Your task to perform on an android device: Show the shopping cart on ebay.com. Search for "logitech g pro" on ebay.com, select the first entry, add it to the cart, then select checkout. Image 0: 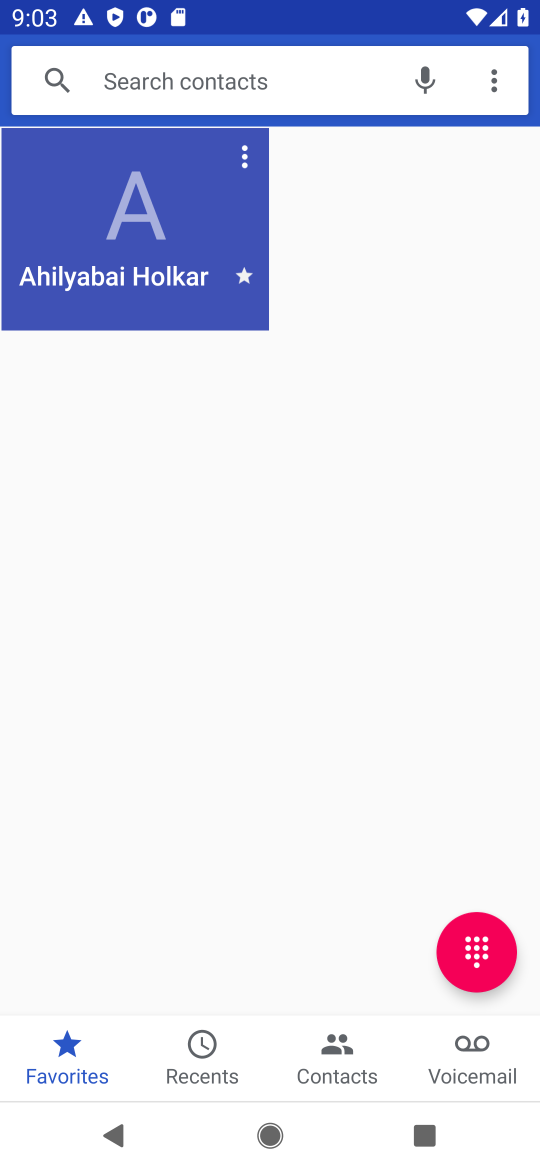
Step 0: press home button
Your task to perform on an android device: Show the shopping cart on ebay.com. Search for "logitech g pro" on ebay.com, select the first entry, add it to the cart, then select checkout. Image 1: 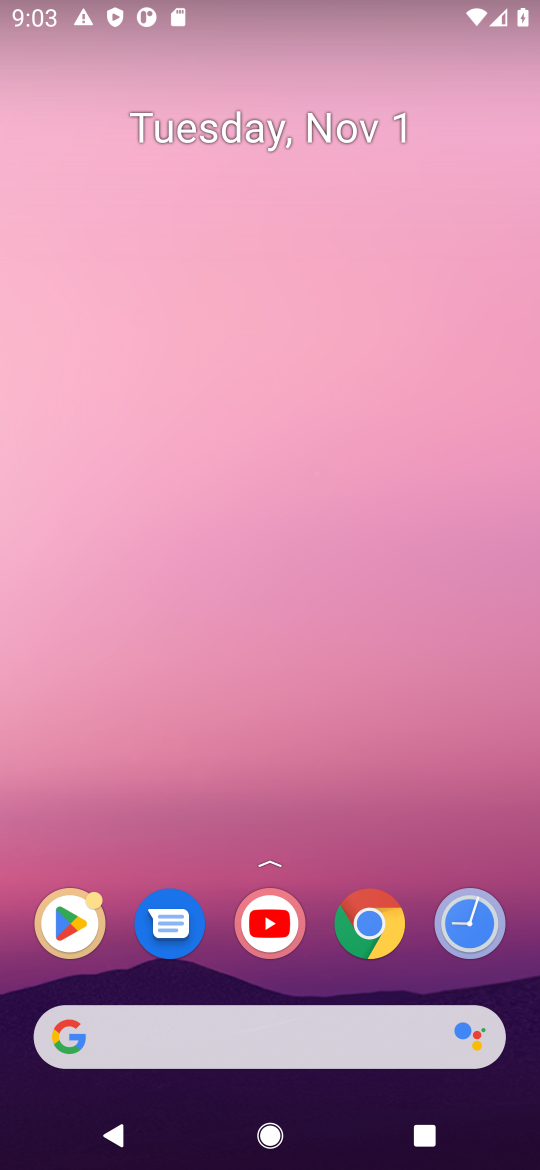
Step 1: drag from (337, 995) to (404, 106)
Your task to perform on an android device: Show the shopping cart on ebay.com. Search for "logitech g pro" on ebay.com, select the first entry, add it to the cart, then select checkout. Image 2: 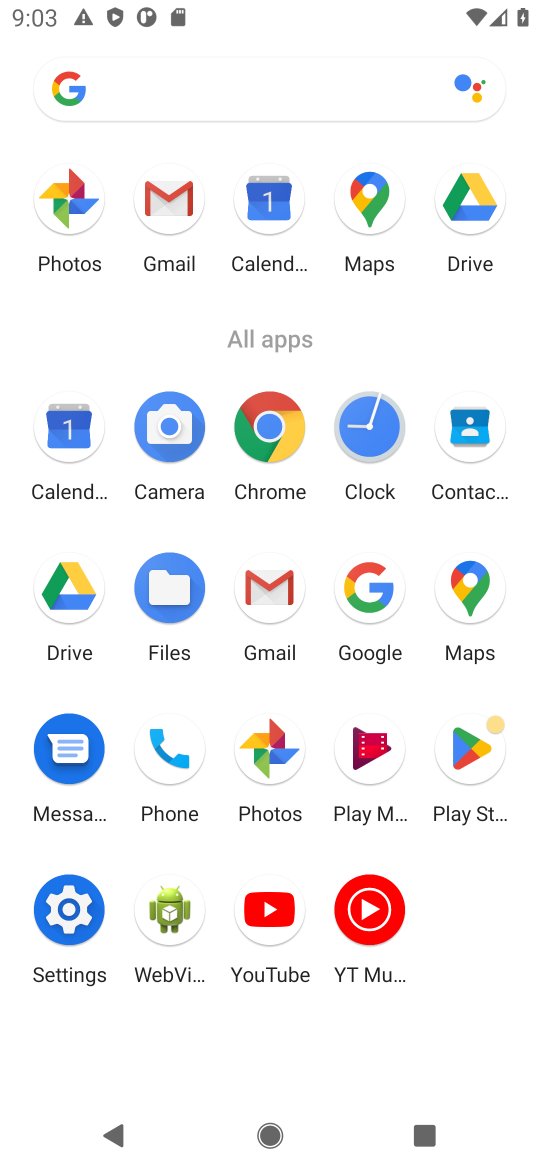
Step 2: click (256, 426)
Your task to perform on an android device: Show the shopping cart on ebay.com. Search for "logitech g pro" on ebay.com, select the first entry, add it to the cart, then select checkout. Image 3: 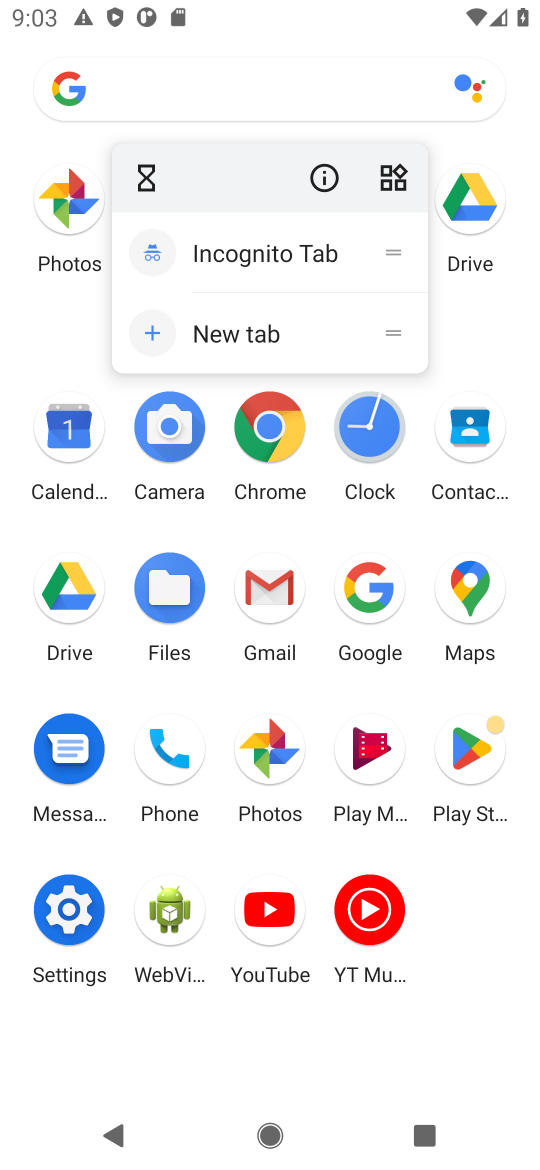
Step 3: click (272, 420)
Your task to perform on an android device: Show the shopping cart on ebay.com. Search for "logitech g pro" on ebay.com, select the first entry, add it to the cart, then select checkout. Image 4: 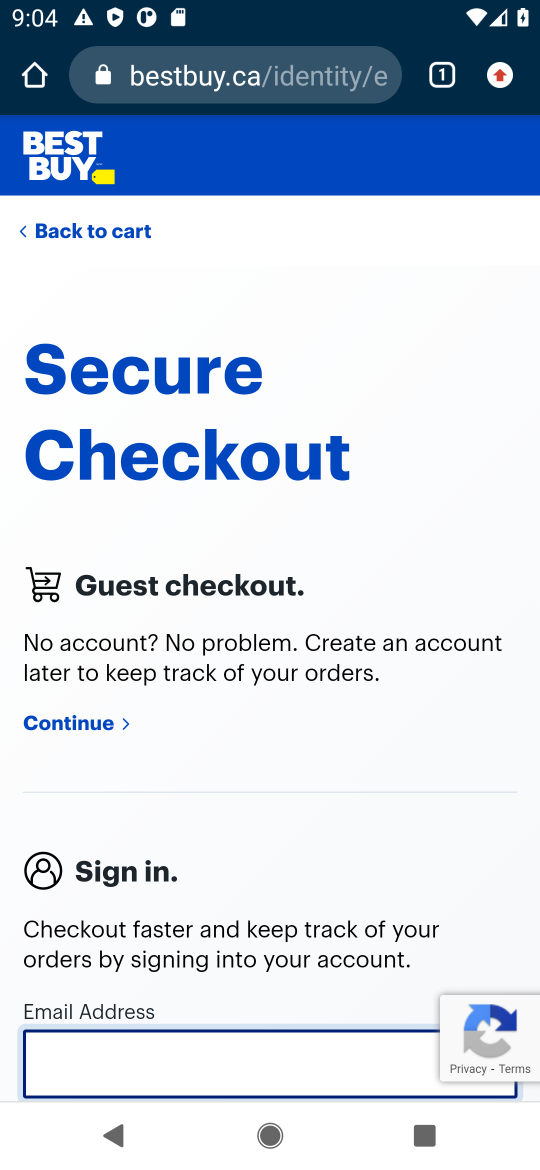
Step 4: click (335, 91)
Your task to perform on an android device: Show the shopping cart on ebay.com. Search for "logitech g pro" on ebay.com, select the first entry, add it to the cart, then select checkout. Image 5: 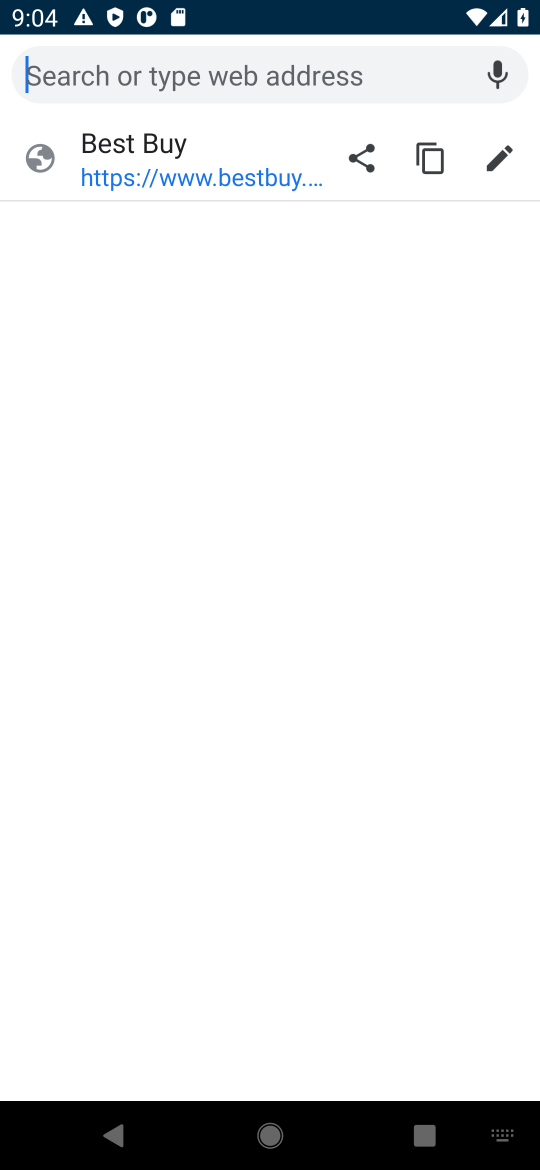
Step 5: type "ebay.com"
Your task to perform on an android device: Show the shopping cart on ebay.com. Search for "logitech g pro" on ebay.com, select the first entry, add it to the cart, then select checkout. Image 6: 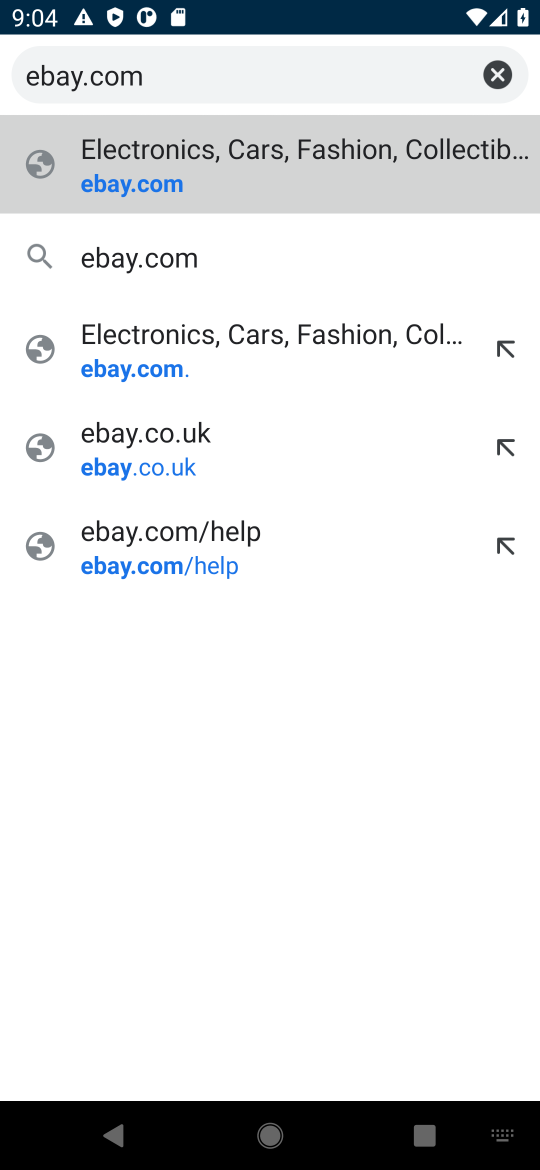
Step 6: press enter
Your task to perform on an android device: Show the shopping cart on ebay.com. Search for "logitech g pro" on ebay.com, select the first entry, add it to the cart, then select checkout. Image 7: 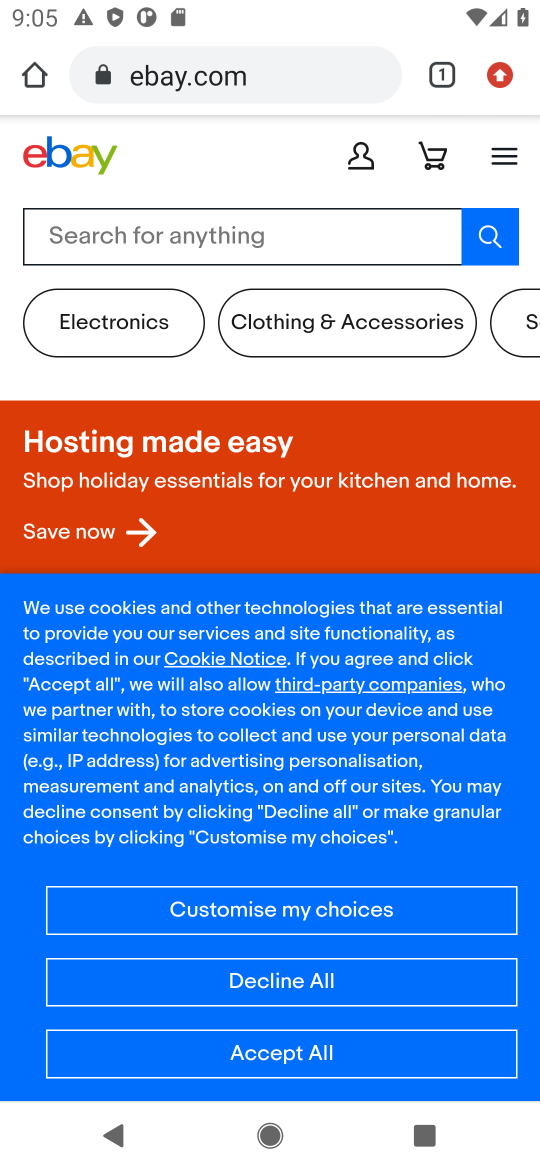
Step 7: click (440, 160)
Your task to perform on an android device: Show the shopping cart on ebay.com. Search for "logitech g pro" on ebay.com, select the first entry, add it to the cart, then select checkout. Image 8: 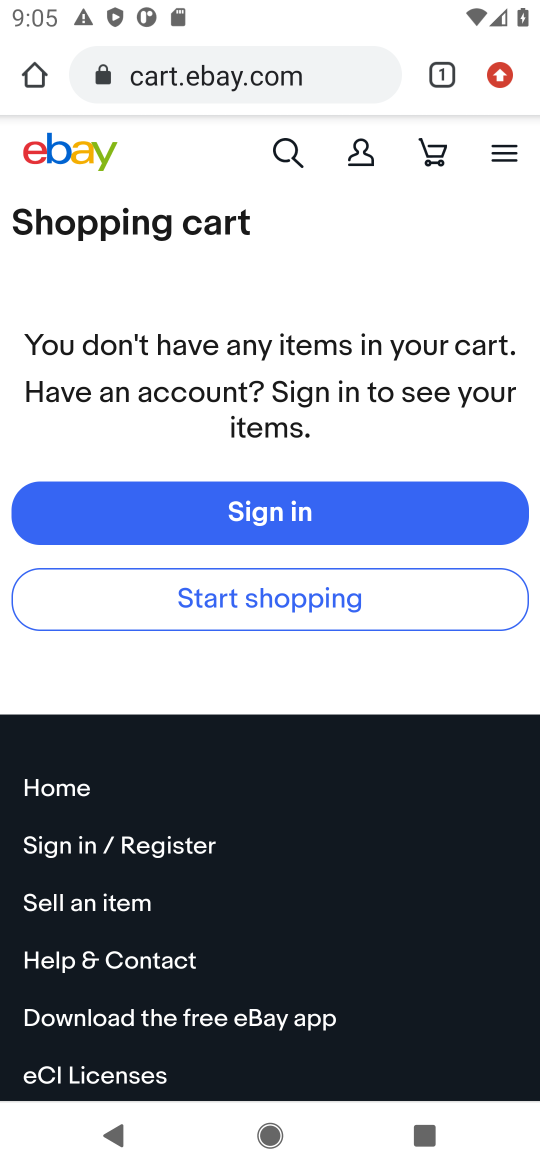
Step 8: click (285, 604)
Your task to perform on an android device: Show the shopping cart on ebay.com. Search for "logitech g pro" on ebay.com, select the first entry, add it to the cart, then select checkout. Image 9: 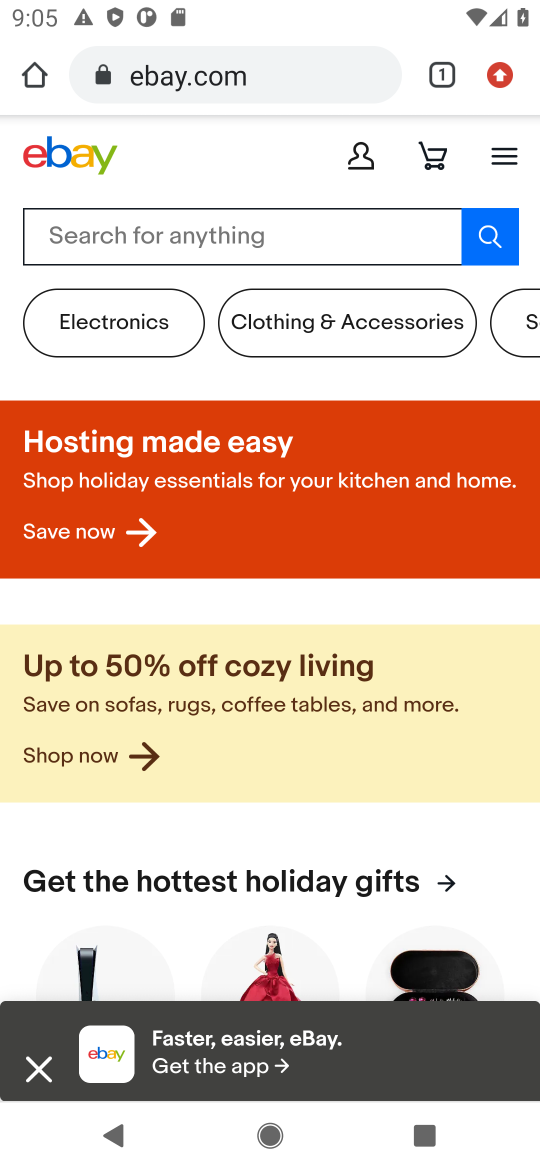
Step 9: click (287, 234)
Your task to perform on an android device: Show the shopping cart on ebay.com. Search for "logitech g pro" on ebay.com, select the first entry, add it to the cart, then select checkout. Image 10: 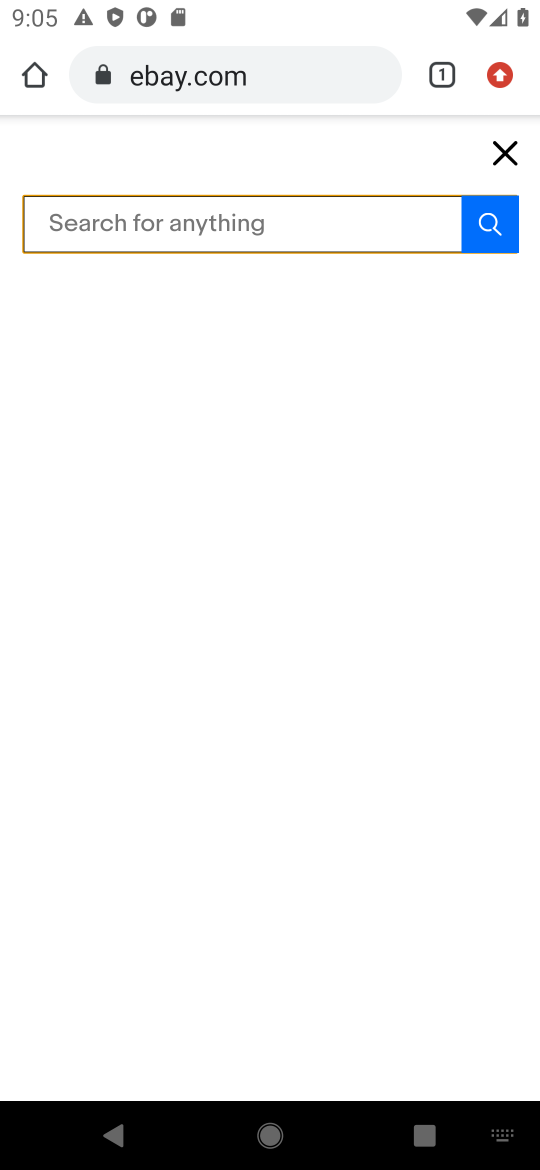
Step 10: type "logitech g pro"
Your task to perform on an android device: Show the shopping cart on ebay.com. Search for "logitech g pro" on ebay.com, select the first entry, add it to the cart, then select checkout. Image 11: 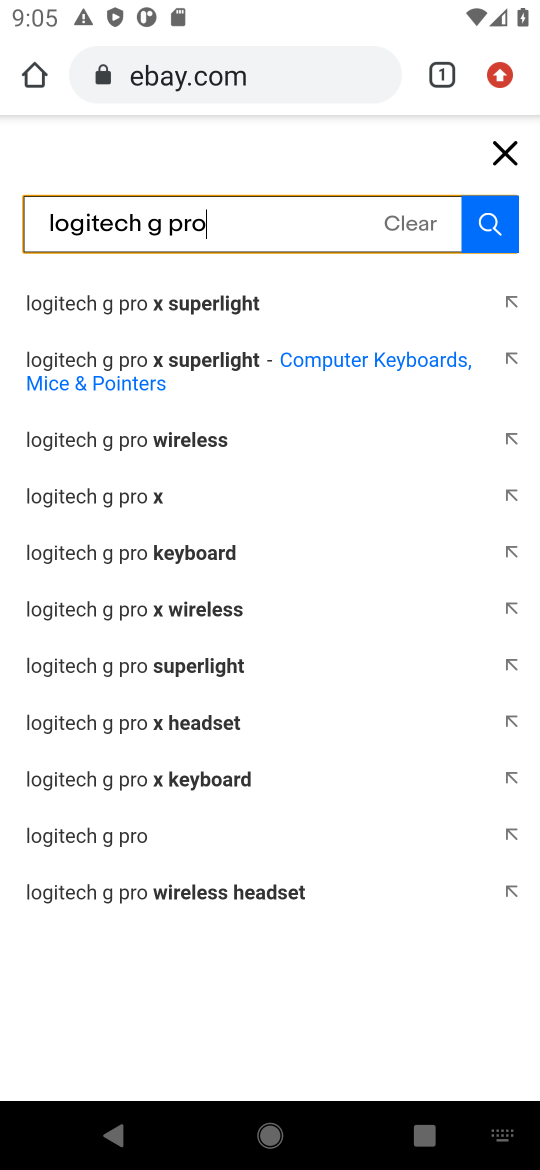
Step 11: press enter
Your task to perform on an android device: Show the shopping cart on ebay.com. Search for "logitech g pro" on ebay.com, select the first entry, add it to the cart, then select checkout. Image 12: 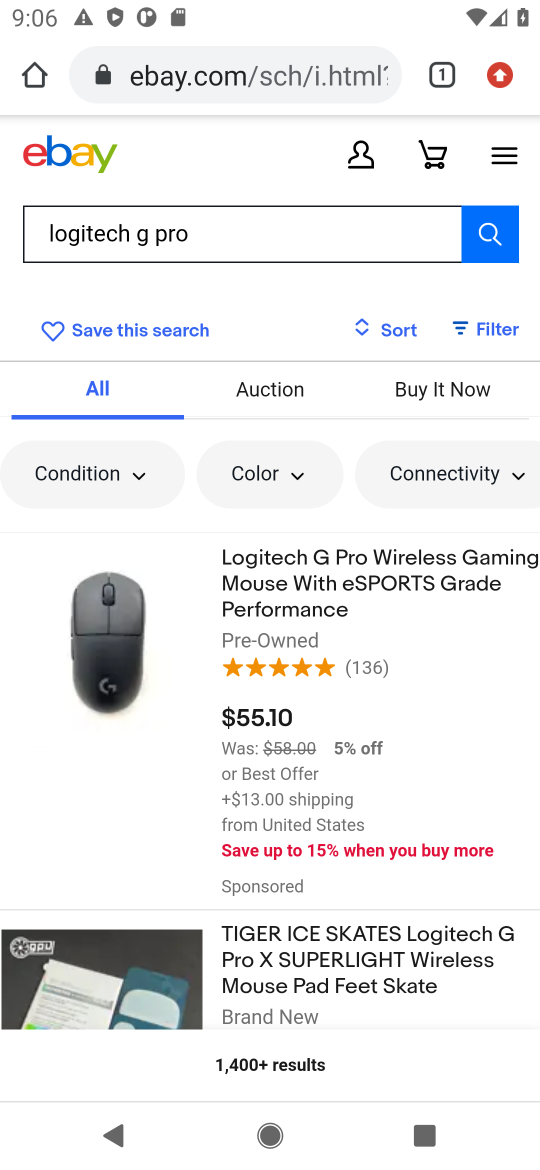
Step 12: click (122, 608)
Your task to perform on an android device: Show the shopping cart on ebay.com. Search for "logitech g pro" on ebay.com, select the first entry, add it to the cart, then select checkout. Image 13: 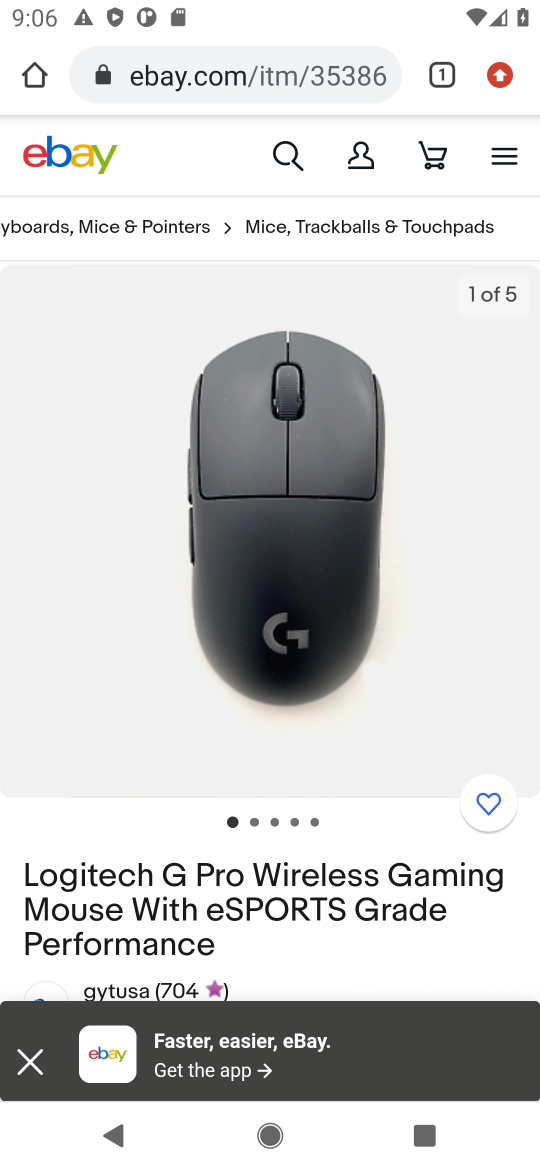
Step 13: drag from (159, 855) to (304, 94)
Your task to perform on an android device: Show the shopping cart on ebay.com. Search for "logitech g pro" on ebay.com, select the first entry, add it to the cart, then select checkout. Image 14: 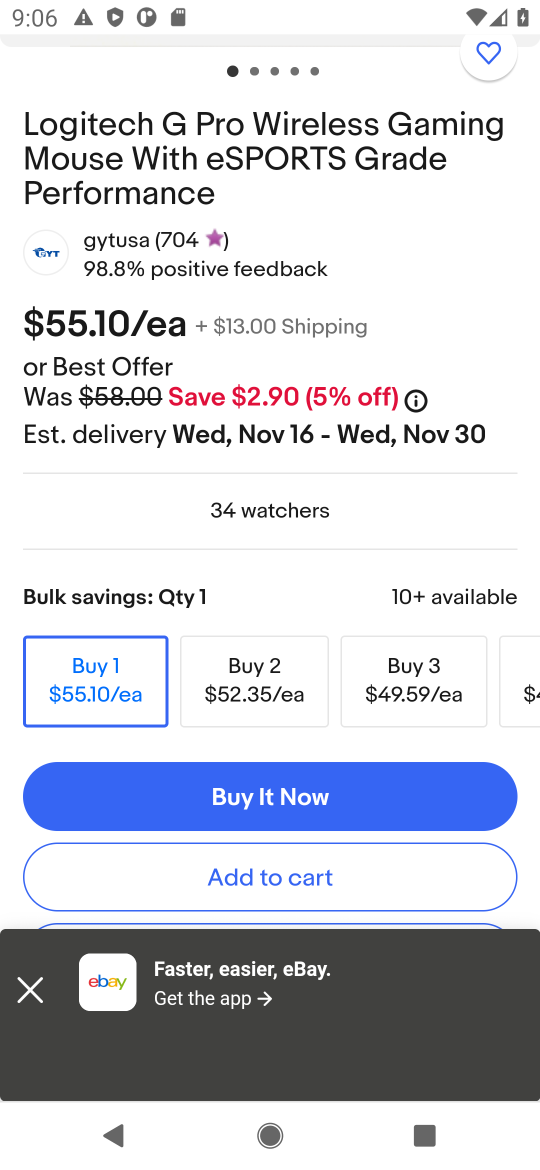
Step 14: click (344, 894)
Your task to perform on an android device: Show the shopping cart on ebay.com. Search for "logitech g pro" on ebay.com, select the first entry, add it to the cart, then select checkout. Image 15: 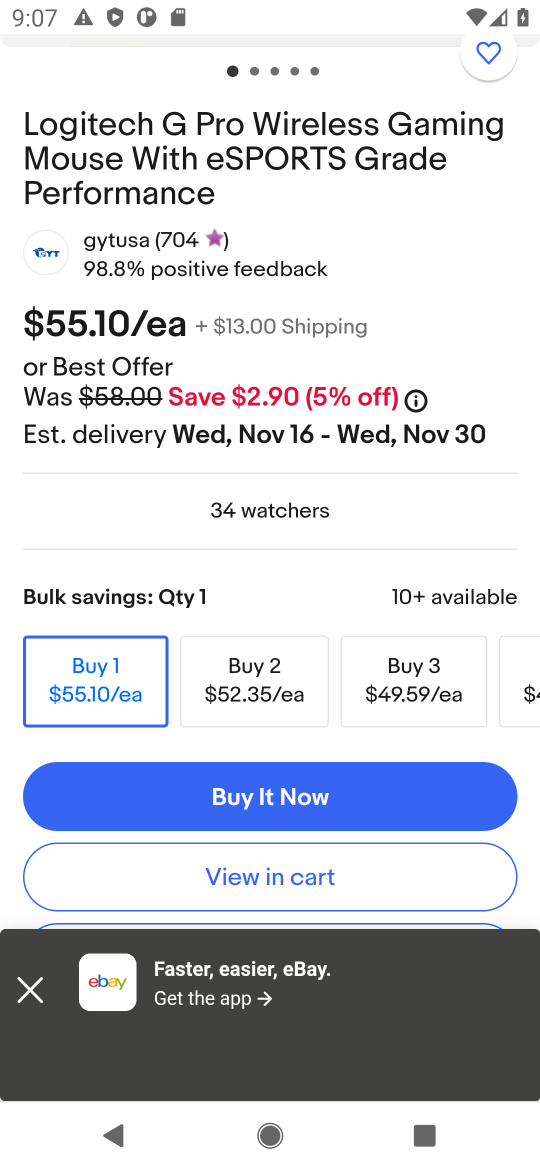
Step 15: click (320, 890)
Your task to perform on an android device: Show the shopping cart on ebay.com. Search for "logitech g pro" on ebay.com, select the first entry, add it to the cart, then select checkout. Image 16: 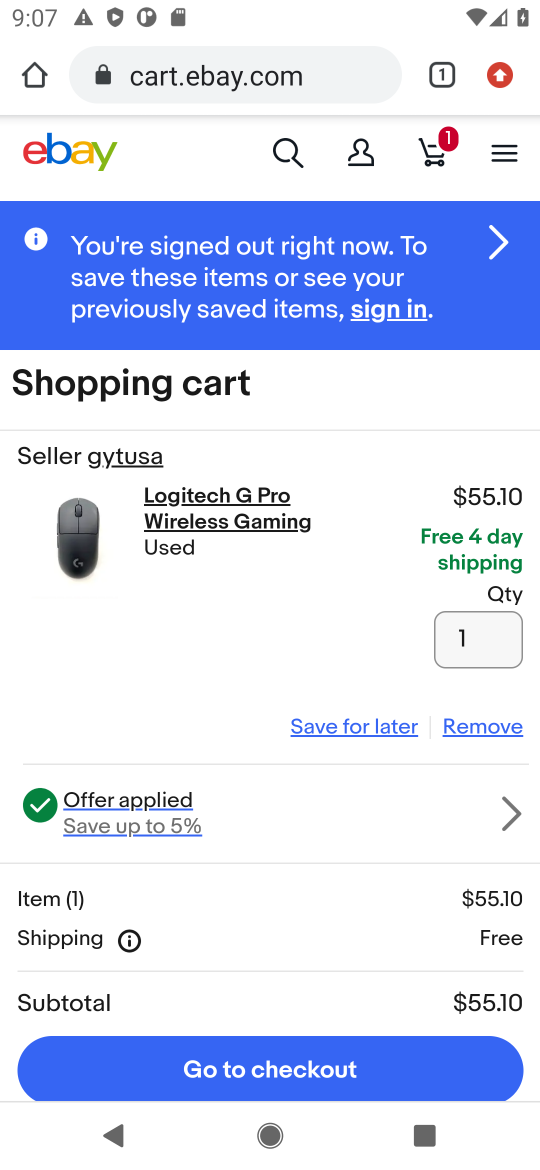
Step 16: click (325, 1064)
Your task to perform on an android device: Show the shopping cart on ebay.com. Search for "logitech g pro" on ebay.com, select the first entry, add it to the cart, then select checkout. Image 17: 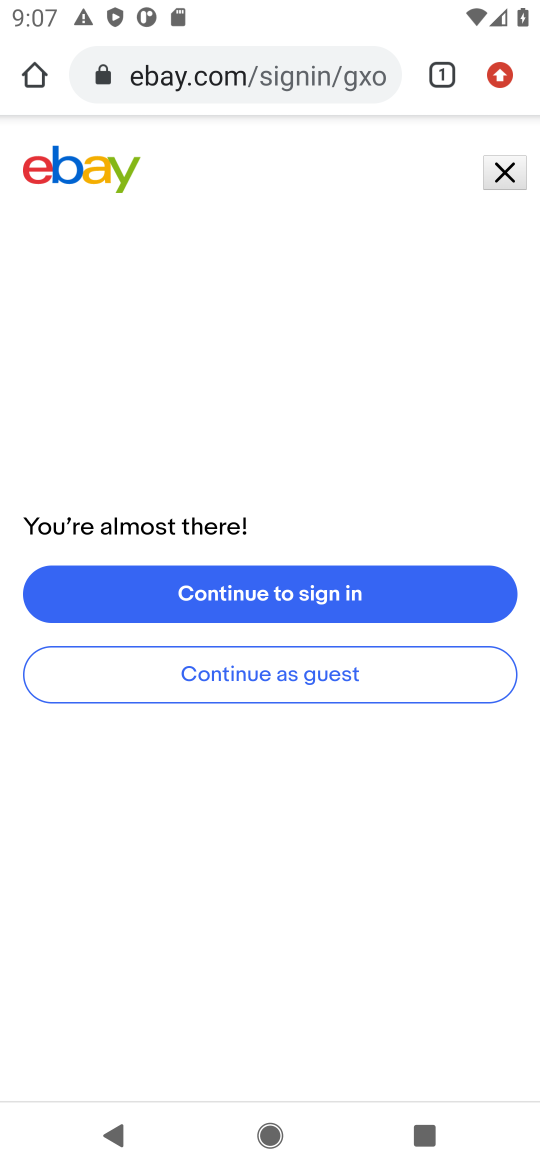
Step 17: task complete